Your task to perform on an android device: Open calendar and show me the fourth week of next month Image 0: 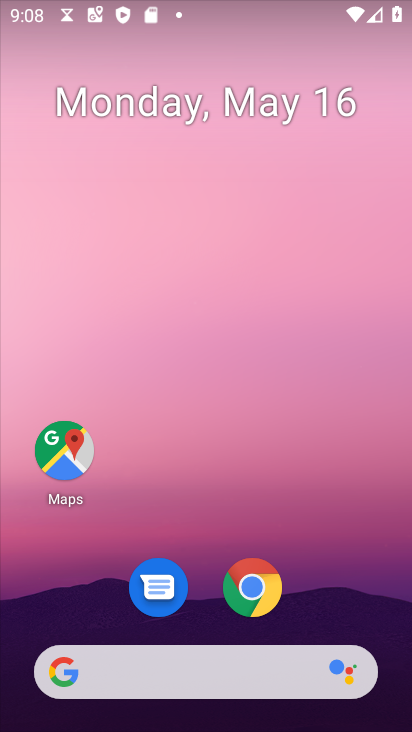
Step 0: drag from (366, 581) to (315, 298)
Your task to perform on an android device: Open calendar and show me the fourth week of next month Image 1: 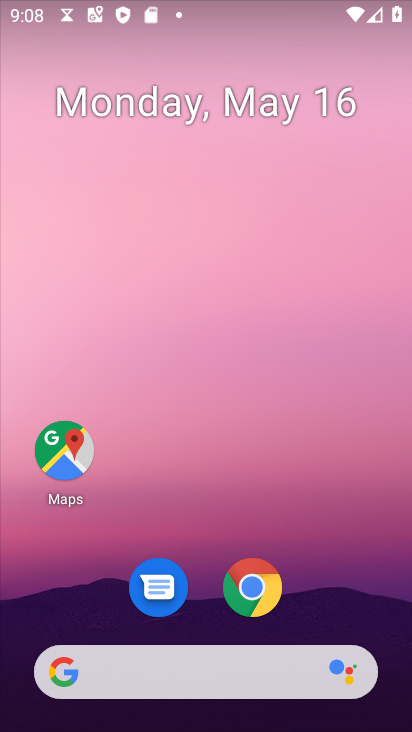
Step 1: drag from (325, 605) to (263, 206)
Your task to perform on an android device: Open calendar and show me the fourth week of next month Image 2: 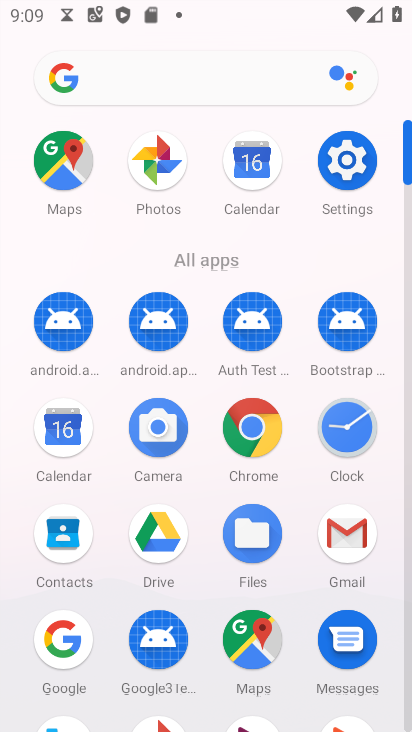
Step 2: click (254, 158)
Your task to perform on an android device: Open calendar and show me the fourth week of next month Image 3: 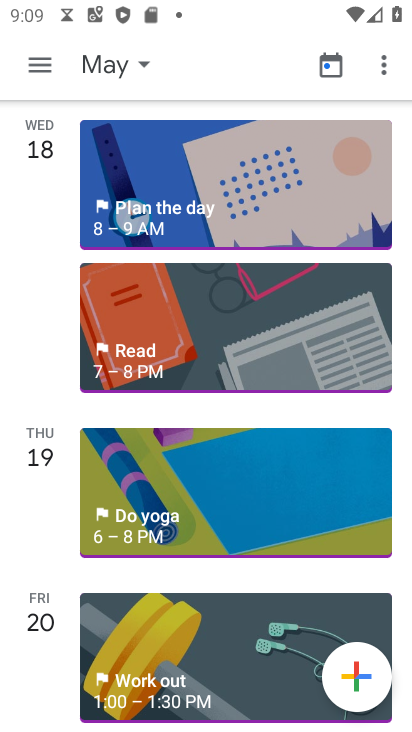
Step 3: click (49, 65)
Your task to perform on an android device: Open calendar and show me the fourth week of next month Image 4: 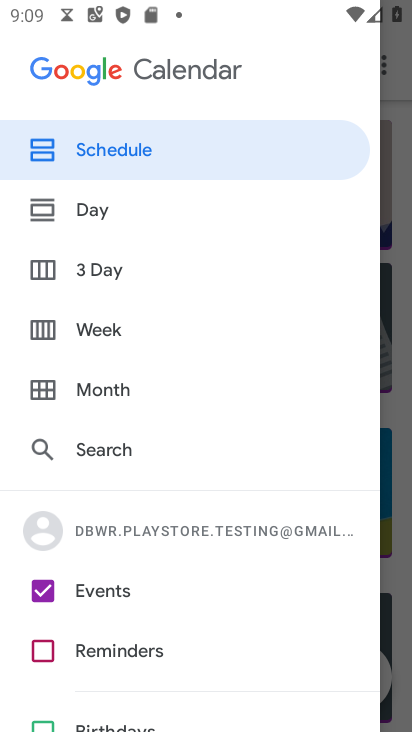
Step 4: click (113, 321)
Your task to perform on an android device: Open calendar and show me the fourth week of next month Image 5: 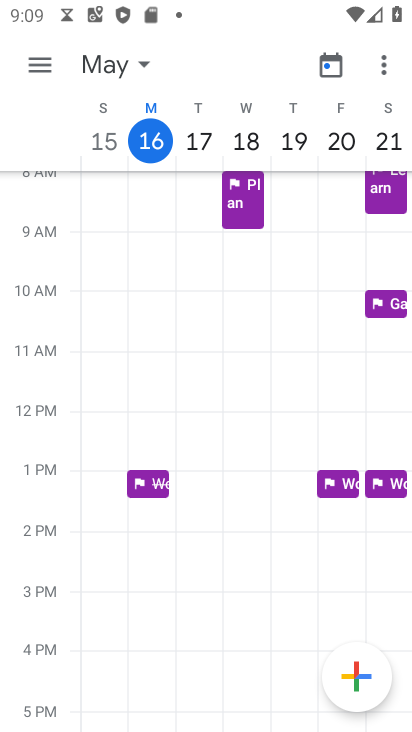
Step 5: click (138, 74)
Your task to perform on an android device: Open calendar and show me the fourth week of next month Image 6: 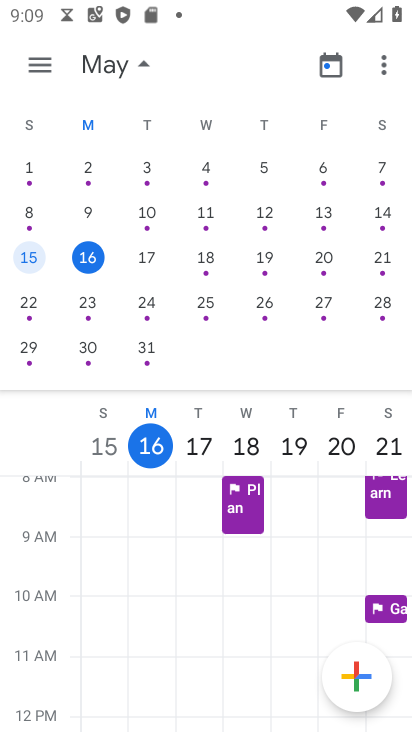
Step 6: drag from (395, 237) to (107, 264)
Your task to perform on an android device: Open calendar and show me the fourth week of next month Image 7: 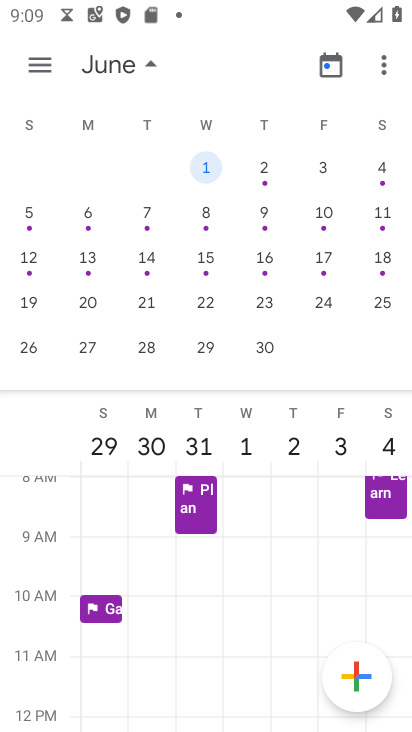
Step 7: click (86, 302)
Your task to perform on an android device: Open calendar and show me the fourth week of next month Image 8: 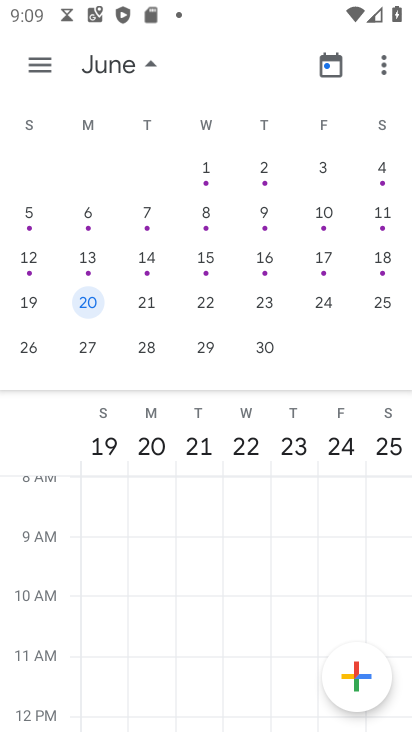
Step 8: click (123, 67)
Your task to perform on an android device: Open calendar and show me the fourth week of next month Image 9: 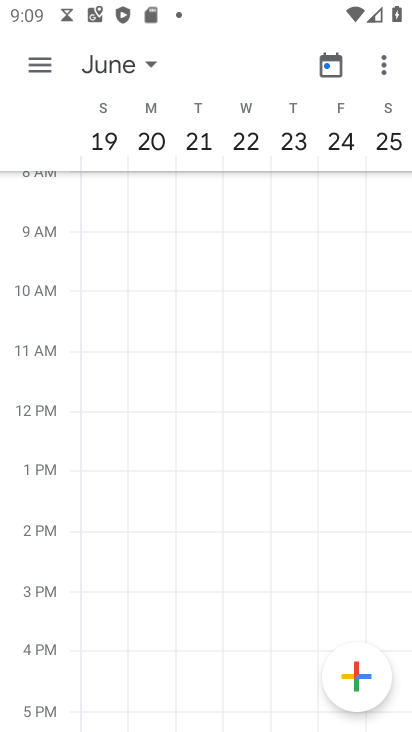
Step 9: task complete